Your task to perform on an android device: add a contact Image 0: 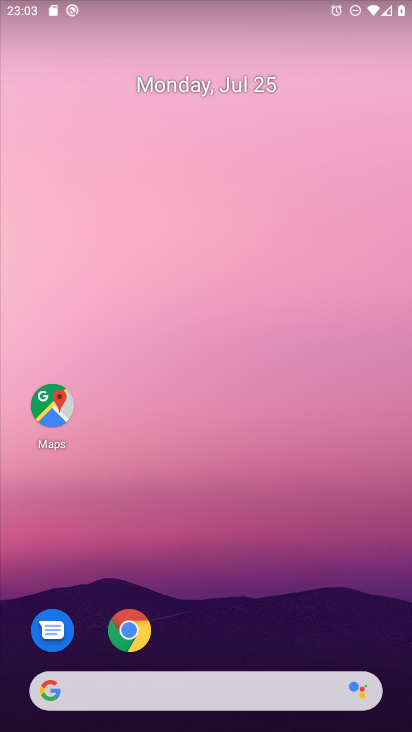
Step 0: drag from (318, 588) to (345, 45)
Your task to perform on an android device: add a contact Image 1: 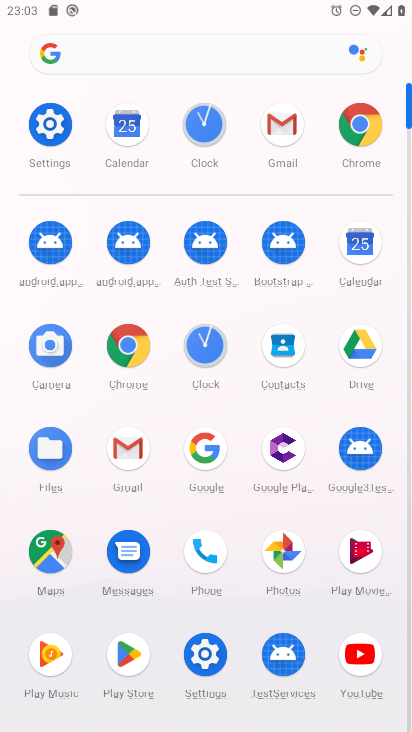
Step 1: click (278, 350)
Your task to perform on an android device: add a contact Image 2: 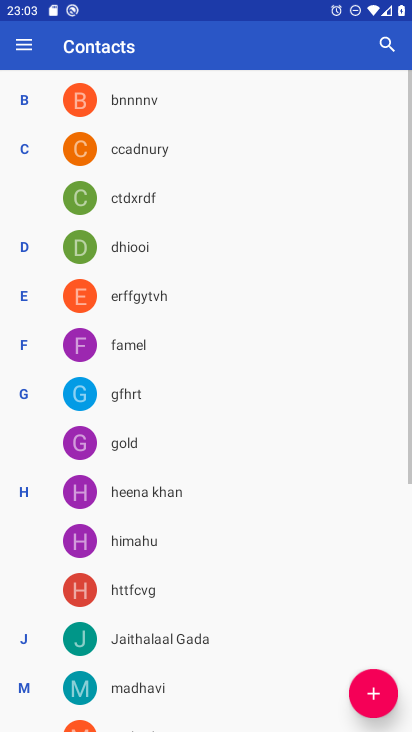
Step 2: click (367, 704)
Your task to perform on an android device: add a contact Image 3: 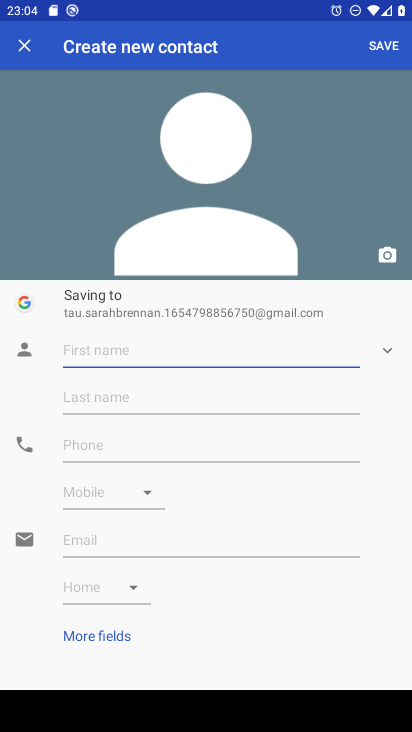
Step 3: type "good"
Your task to perform on an android device: add a contact Image 4: 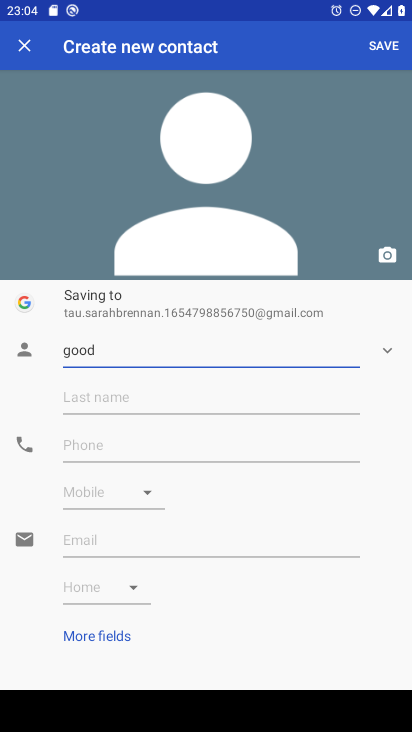
Step 4: click (375, 45)
Your task to perform on an android device: add a contact Image 5: 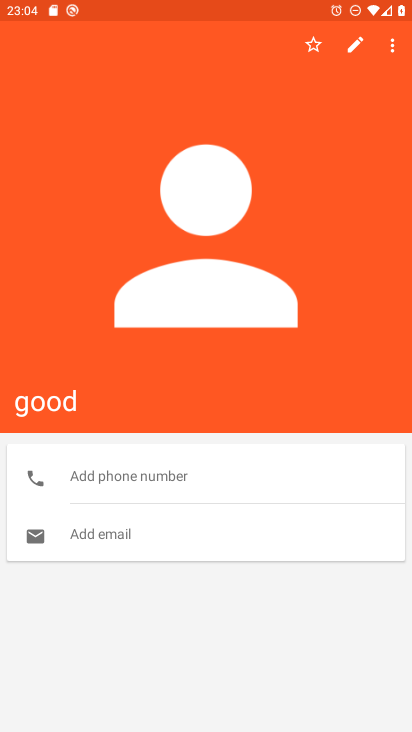
Step 5: task complete